Your task to perform on an android device: Check the news Image 0: 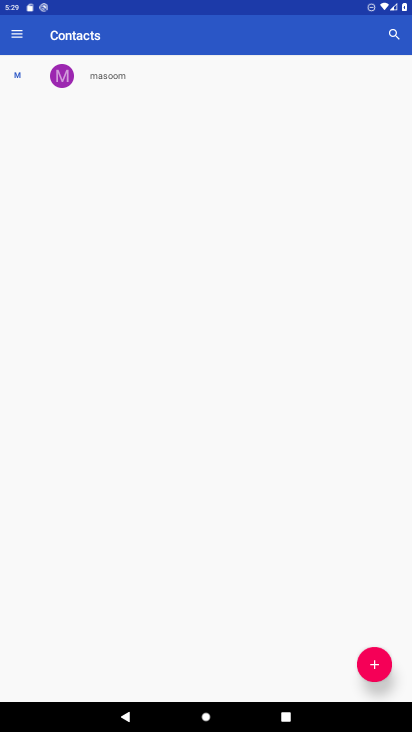
Step 0: type ""
Your task to perform on an android device: Check the news Image 1: 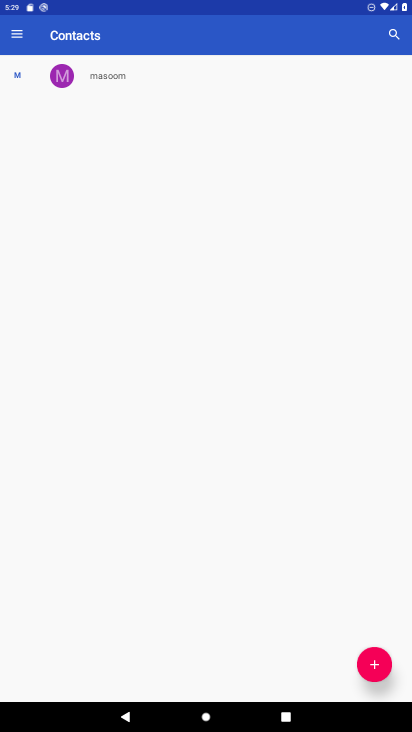
Step 1: press home button
Your task to perform on an android device: Check the news Image 2: 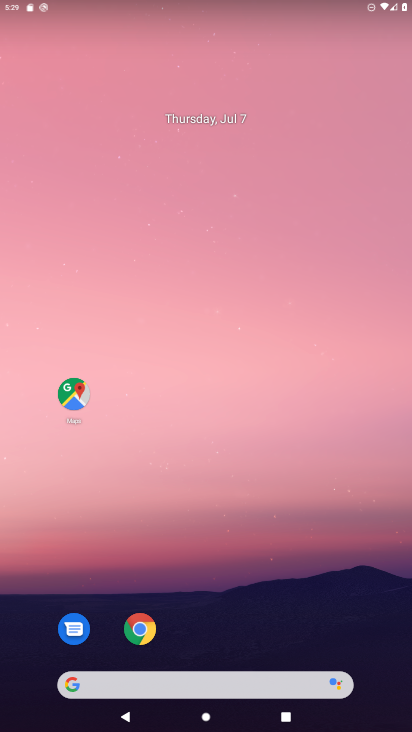
Step 2: click (137, 628)
Your task to perform on an android device: Check the news Image 3: 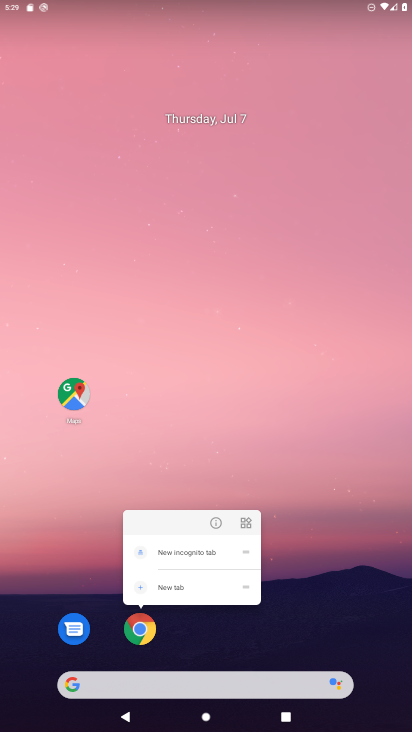
Step 3: click (320, 562)
Your task to perform on an android device: Check the news Image 4: 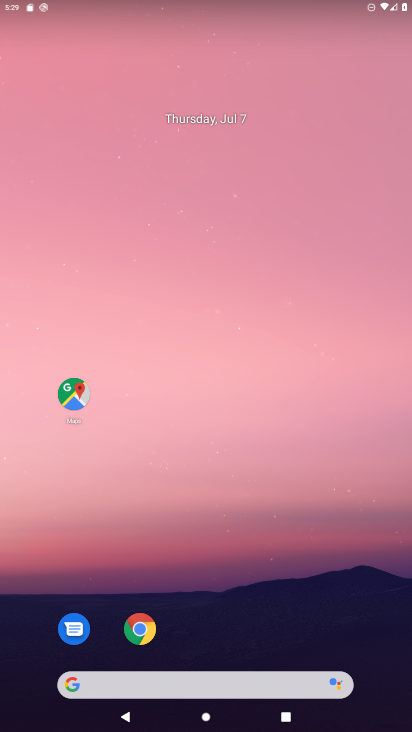
Step 4: drag from (162, 633) to (193, 15)
Your task to perform on an android device: Check the news Image 5: 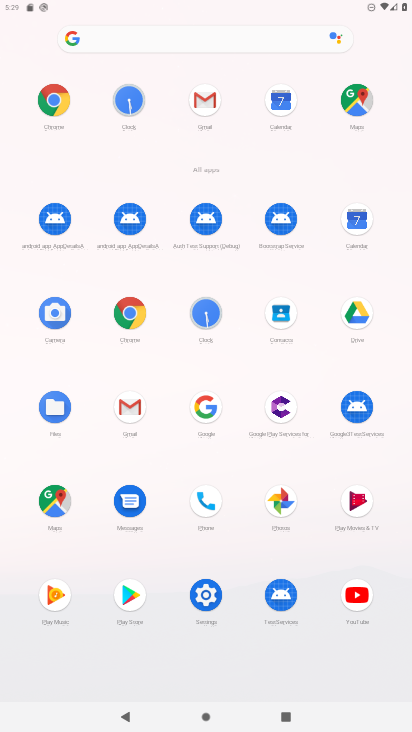
Step 5: click (122, 312)
Your task to perform on an android device: Check the news Image 6: 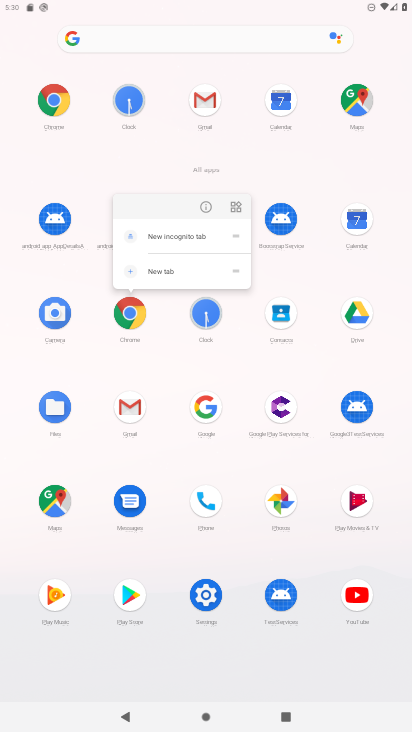
Step 6: click (138, 321)
Your task to perform on an android device: Check the news Image 7: 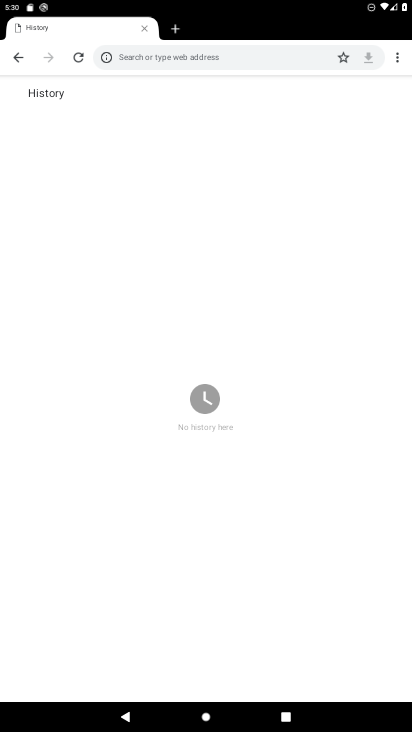
Step 7: type "Check the news"
Your task to perform on an android device: Check the news Image 8: 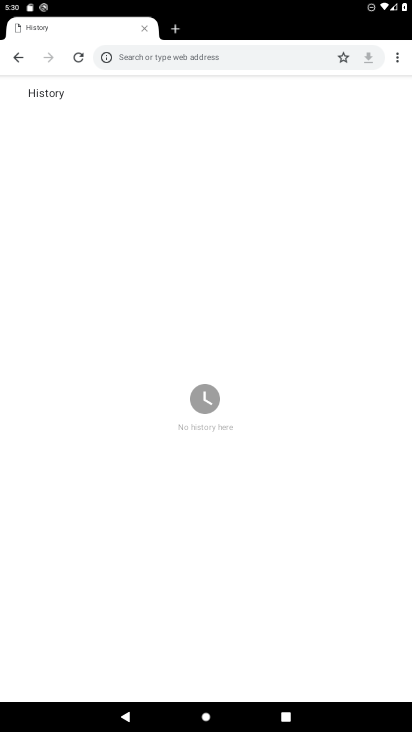
Step 8: press home button
Your task to perform on an android device: Check the news Image 9: 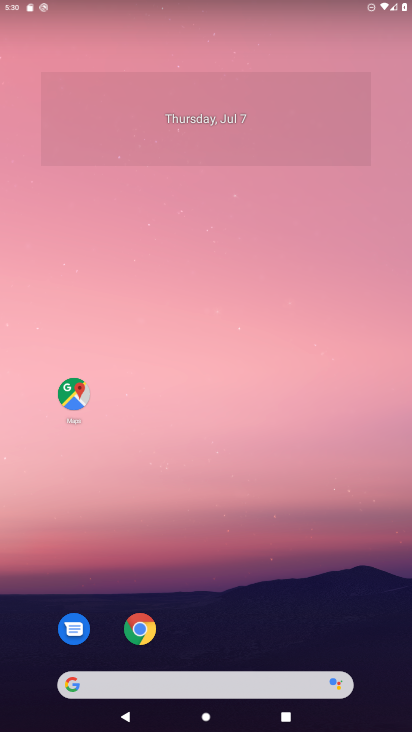
Step 9: click (142, 624)
Your task to perform on an android device: Check the news Image 10: 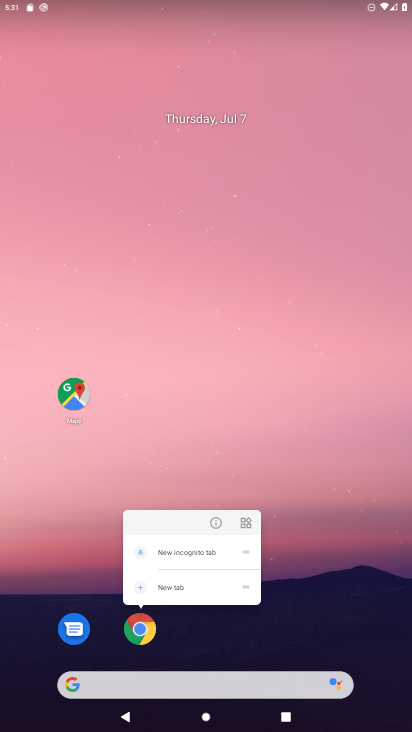
Step 10: click (139, 630)
Your task to perform on an android device: Check the news Image 11: 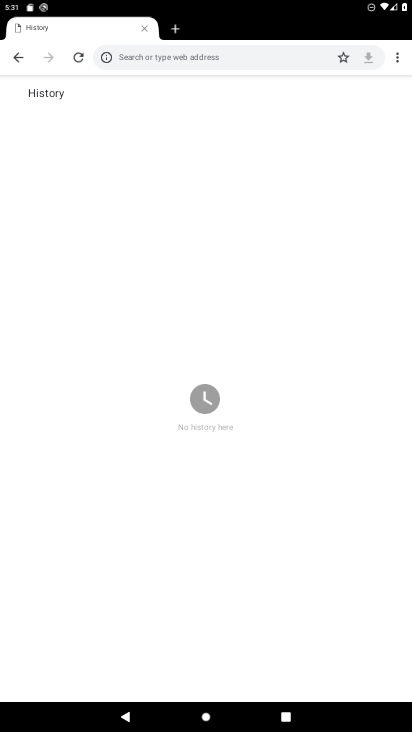
Step 11: click (138, 57)
Your task to perform on an android device: Check the news Image 12: 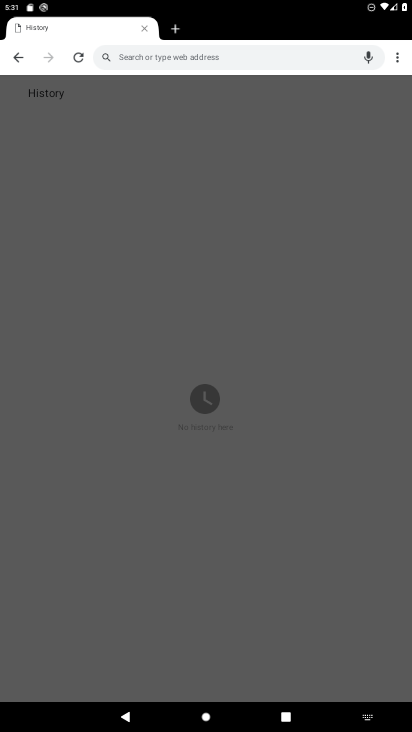
Step 12: type "Check the news"
Your task to perform on an android device: Check the news Image 13: 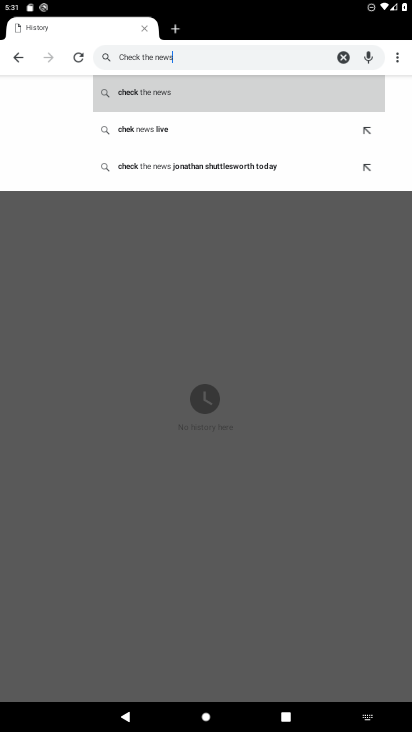
Step 13: type ""
Your task to perform on an android device: Check the news Image 14: 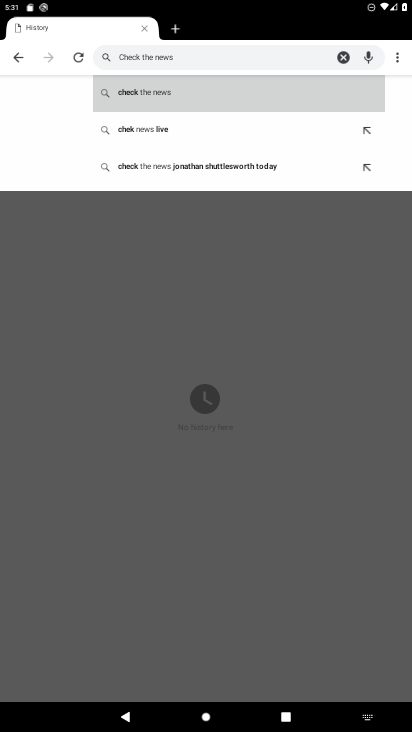
Step 14: type ""
Your task to perform on an android device: Check the news Image 15: 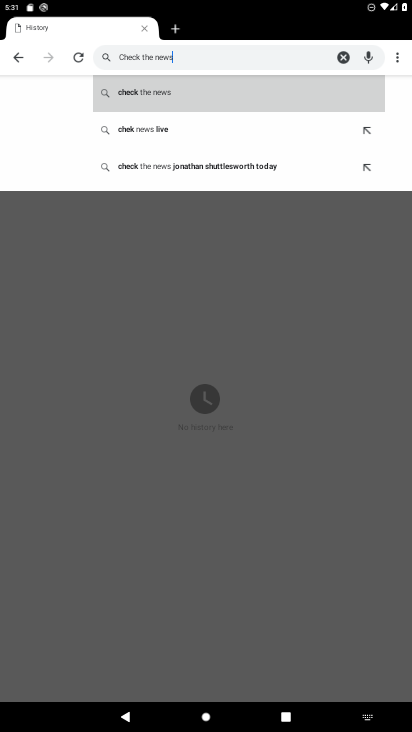
Step 15: click (130, 88)
Your task to perform on an android device: Check the news Image 16: 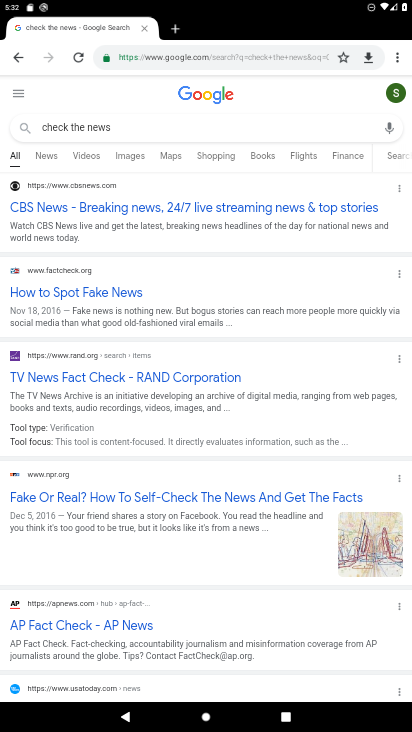
Step 16: task complete